Your task to perform on an android device: Go to Yahoo.com Image 0: 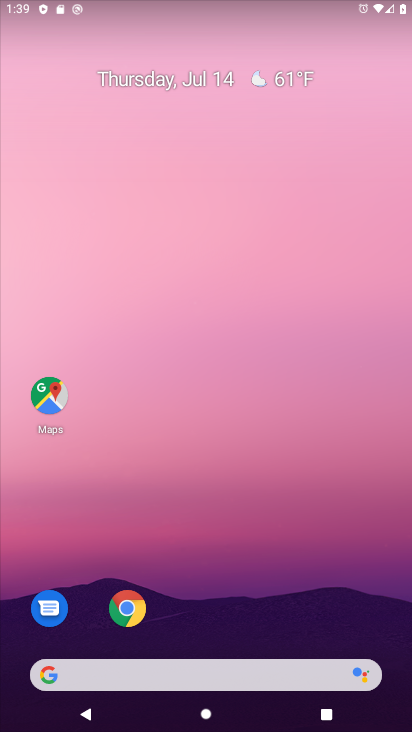
Step 0: click (143, 603)
Your task to perform on an android device: Go to Yahoo.com Image 1: 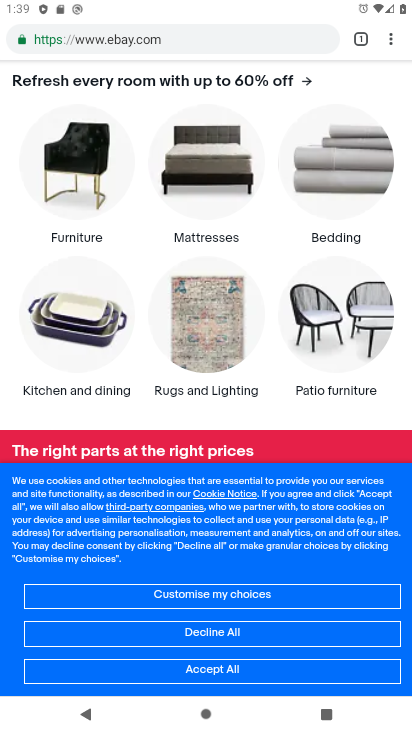
Step 1: click (366, 35)
Your task to perform on an android device: Go to Yahoo.com Image 2: 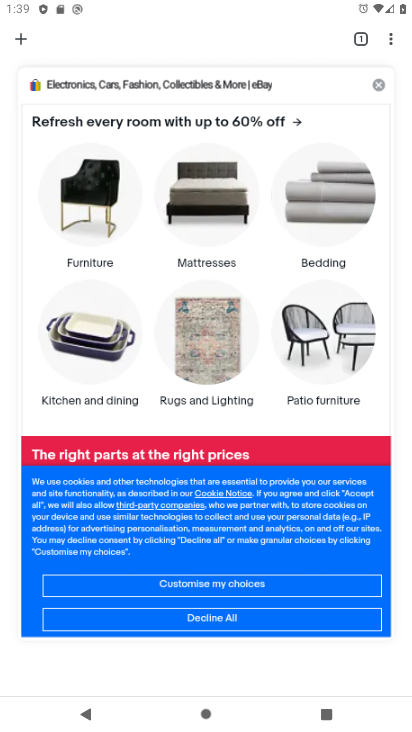
Step 2: click (381, 84)
Your task to perform on an android device: Go to Yahoo.com Image 3: 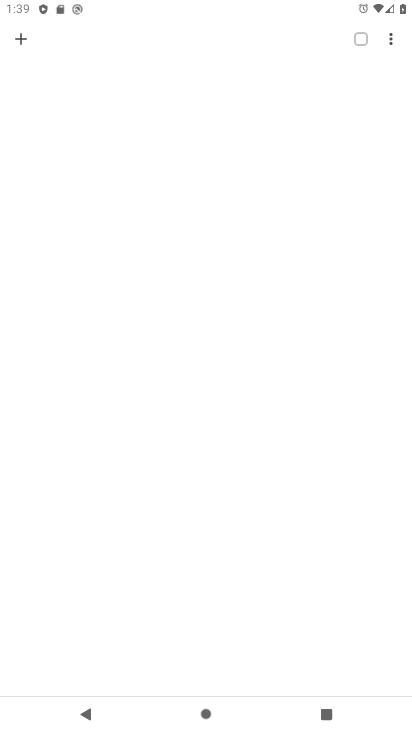
Step 3: click (23, 33)
Your task to perform on an android device: Go to Yahoo.com Image 4: 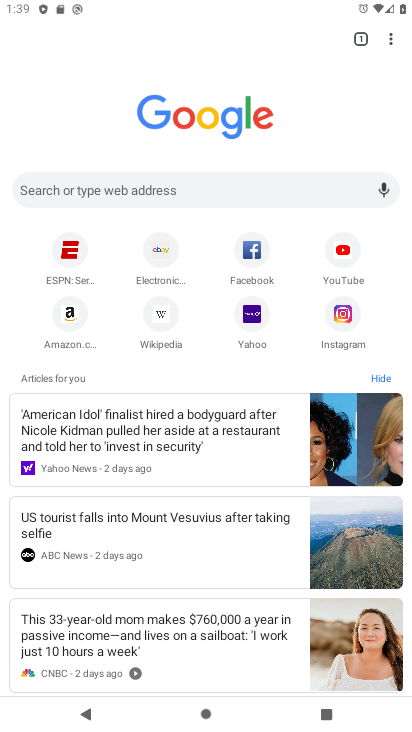
Step 4: click (249, 337)
Your task to perform on an android device: Go to Yahoo.com Image 5: 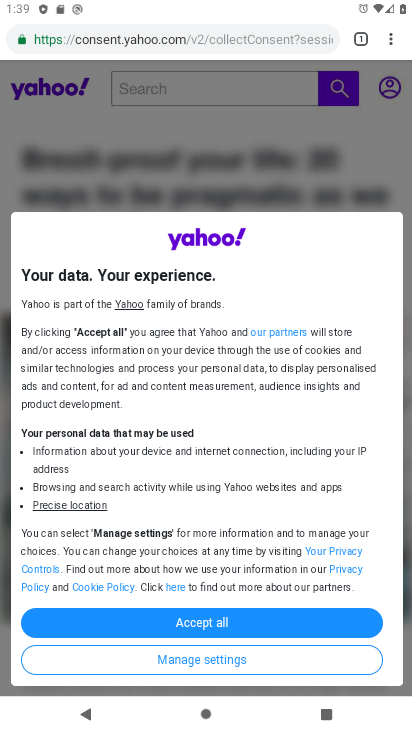
Step 5: task complete